Your task to perform on an android device: Go to accessibility settings Image 0: 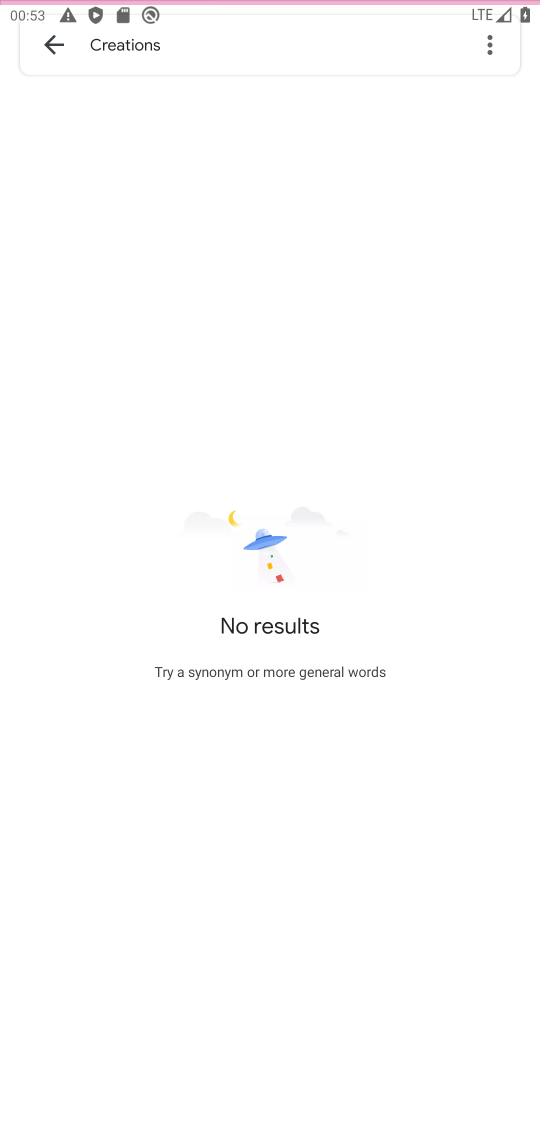
Step 0: press home button
Your task to perform on an android device: Go to accessibility settings Image 1: 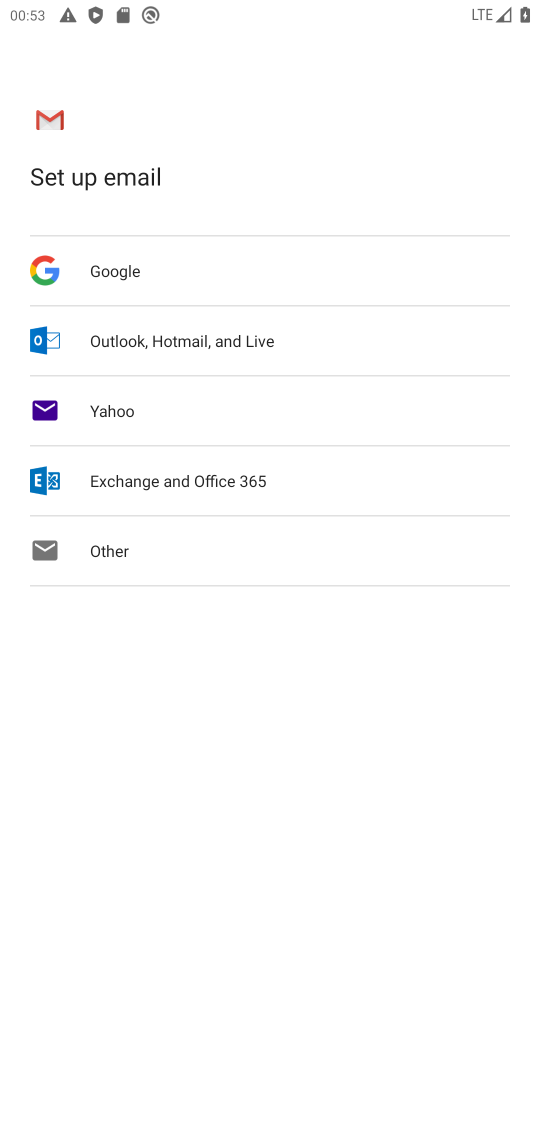
Step 1: drag from (40, 481) to (101, 61)
Your task to perform on an android device: Go to accessibility settings Image 2: 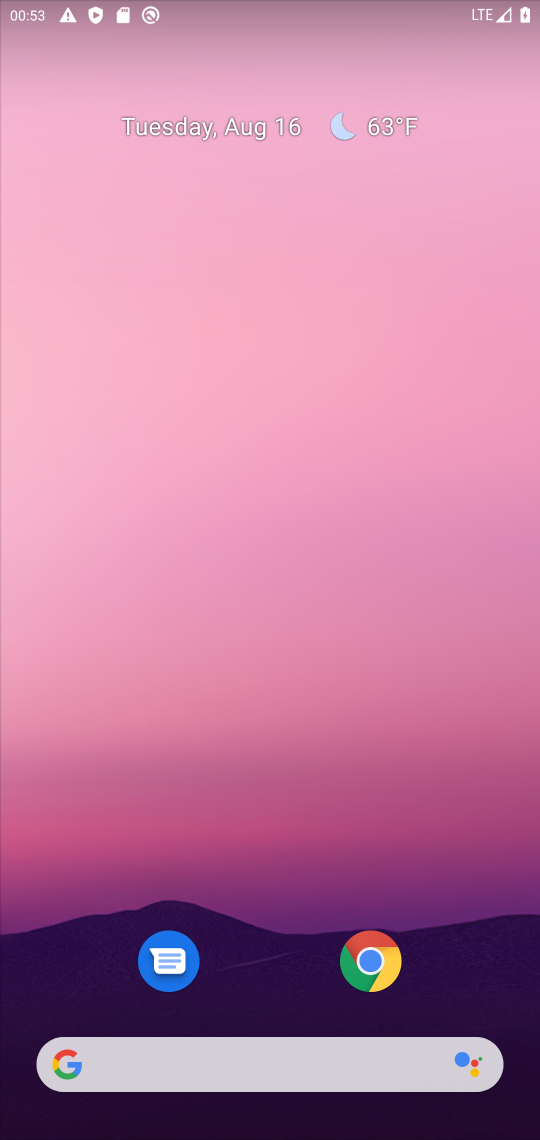
Step 2: drag from (291, 922) to (291, 137)
Your task to perform on an android device: Go to accessibility settings Image 3: 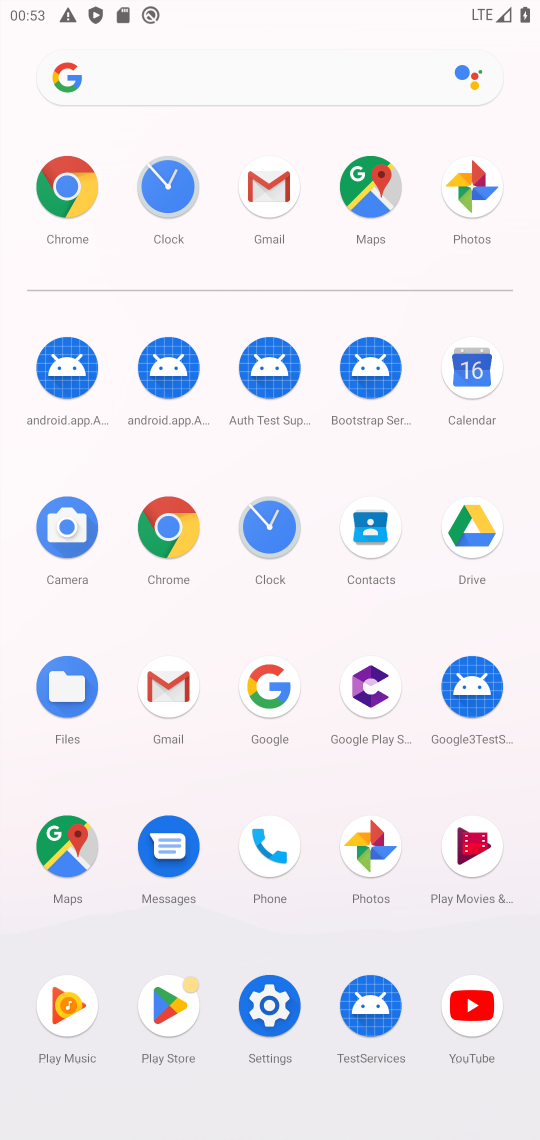
Step 3: click (282, 984)
Your task to perform on an android device: Go to accessibility settings Image 4: 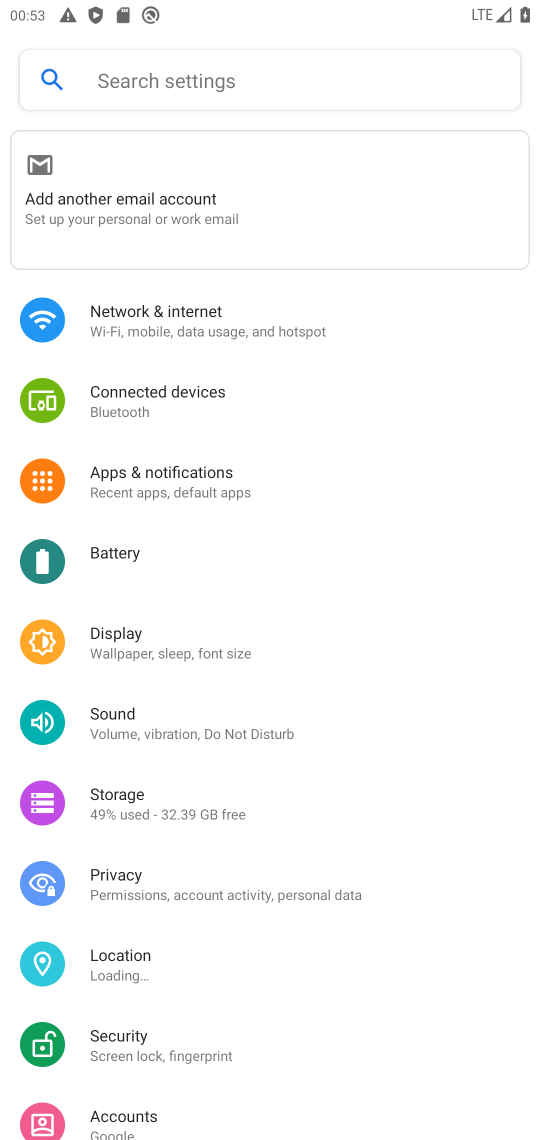
Step 4: drag from (221, 962) to (331, 257)
Your task to perform on an android device: Go to accessibility settings Image 5: 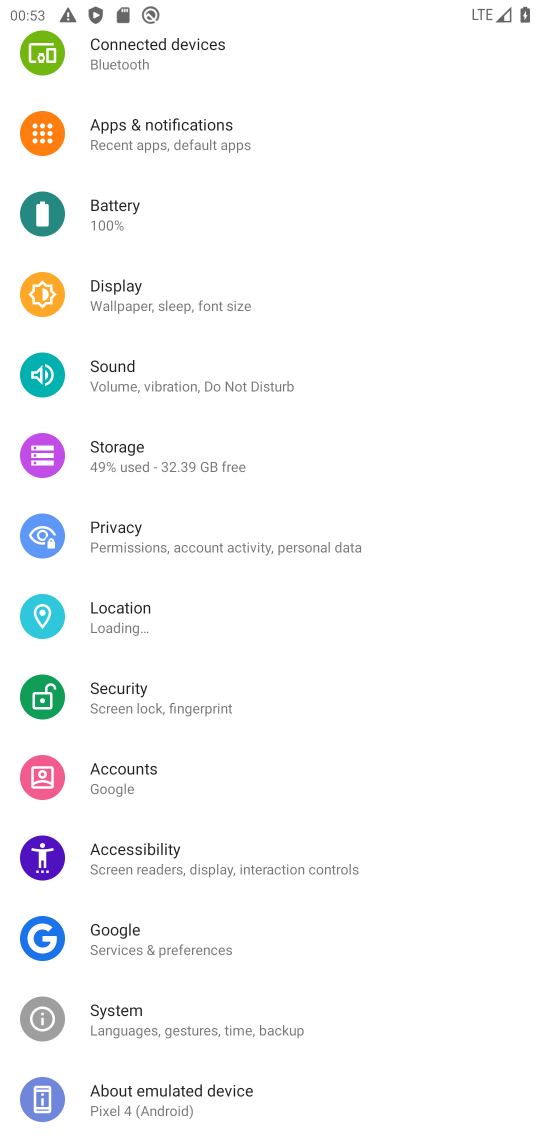
Step 5: click (65, 861)
Your task to perform on an android device: Go to accessibility settings Image 6: 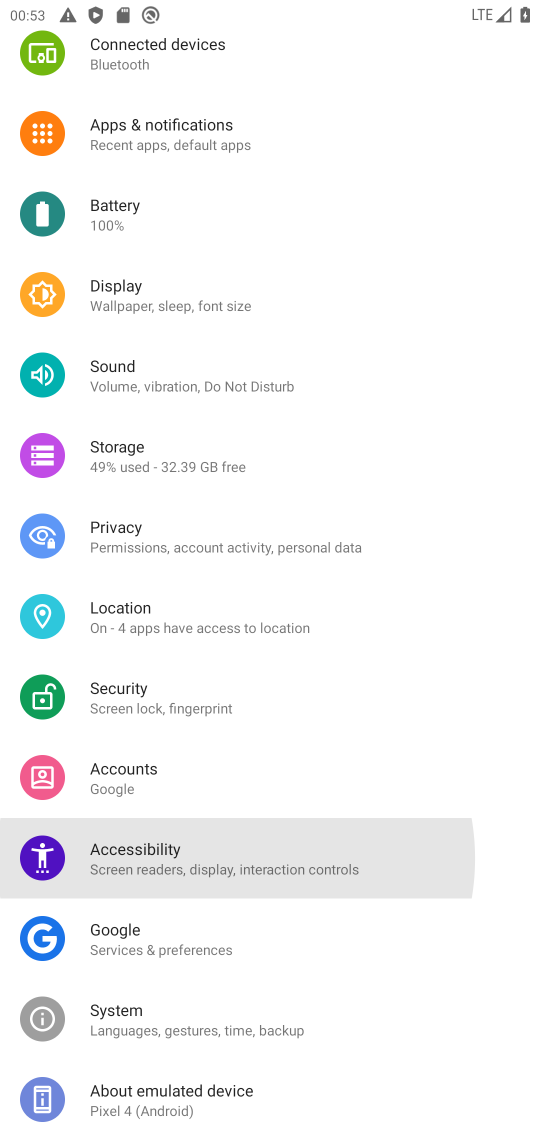
Step 6: task complete